Your task to perform on an android device: Go to wifi settings Image 0: 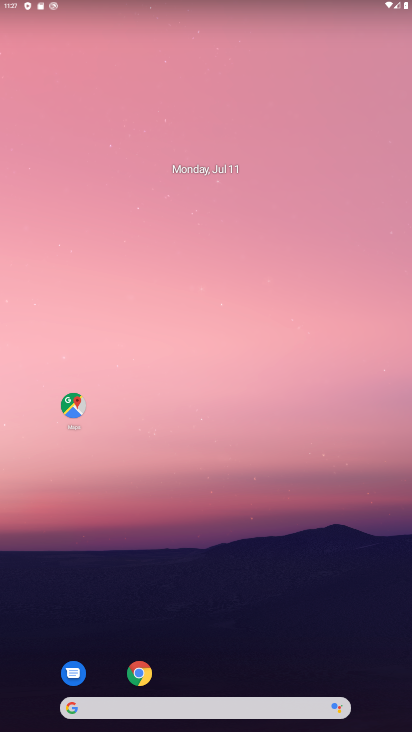
Step 0: press home button
Your task to perform on an android device: Go to wifi settings Image 1: 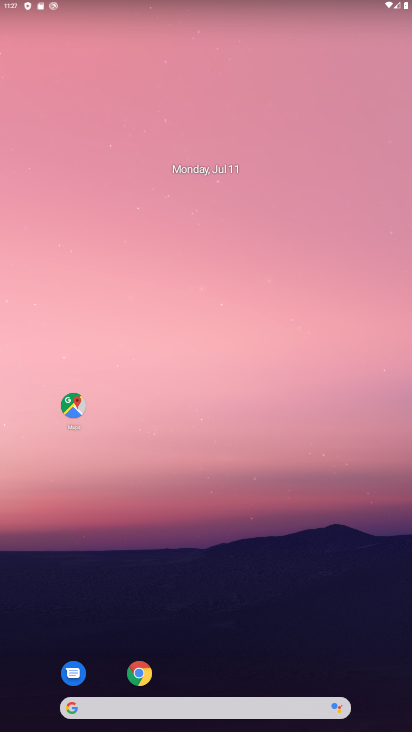
Step 1: drag from (224, 672) to (204, 73)
Your task to perform on an android device: Go to wifi settings Image 2: 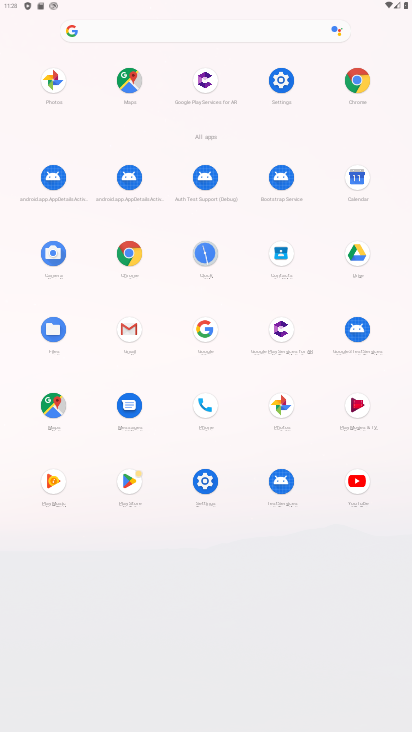
Step 2: click (279, 76)
Your task to perform on an android device: Go to wifi settings Image 3: 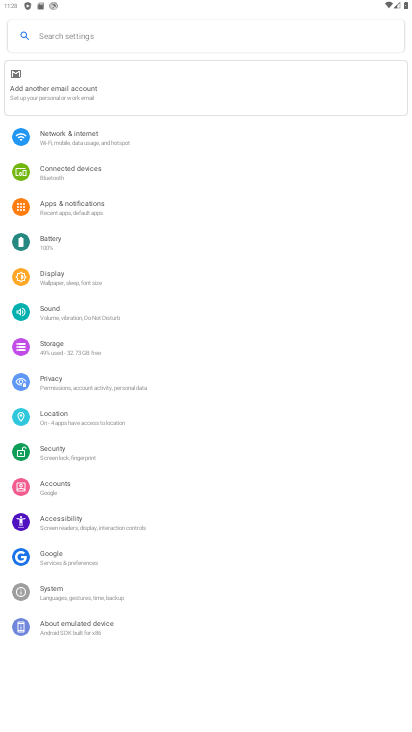
Step 3: click (113, 131)
Your task to perform on an android device: Go to wifi settings Image 4: 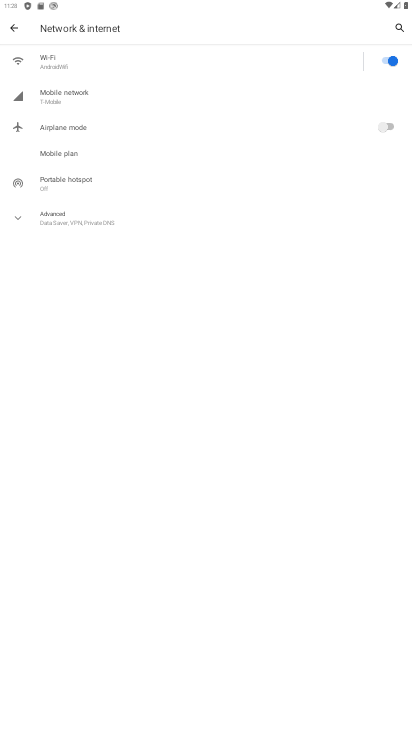
Step 4: click (101, 58)
Your task to perform on an android device: Go to wifi settings Image 5: 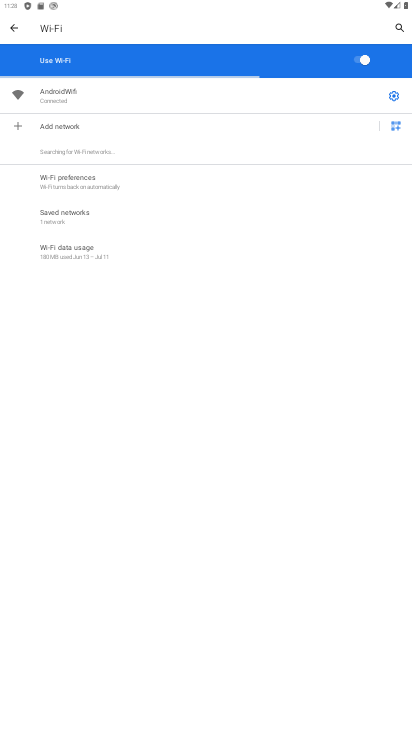
Step 5: task complete